Your task to perform on an android device: Open Google Maps Image 0: 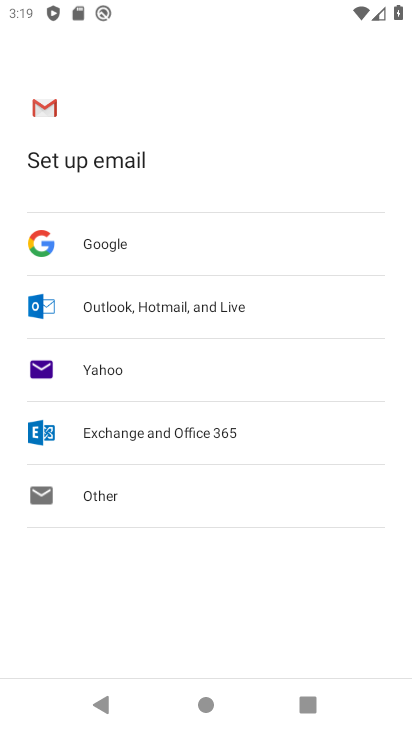
Step 0: press back button
Your task to perform on an android device: Open Google Maps Image 1: 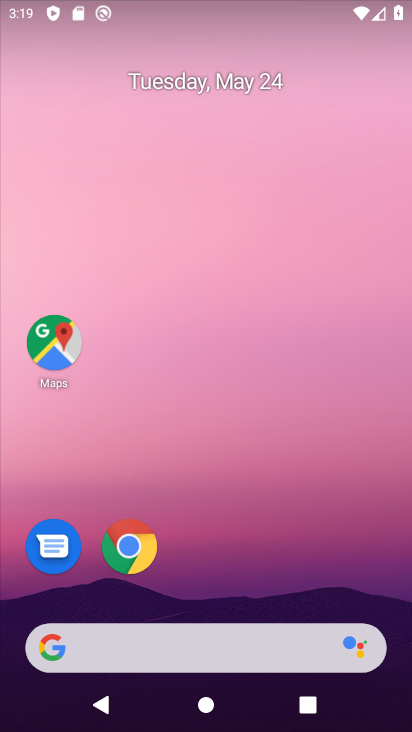
Step 1: drag from (264, 655) to (248, 190)
Your task to perform on an android device: Open Google Maps Image 2: 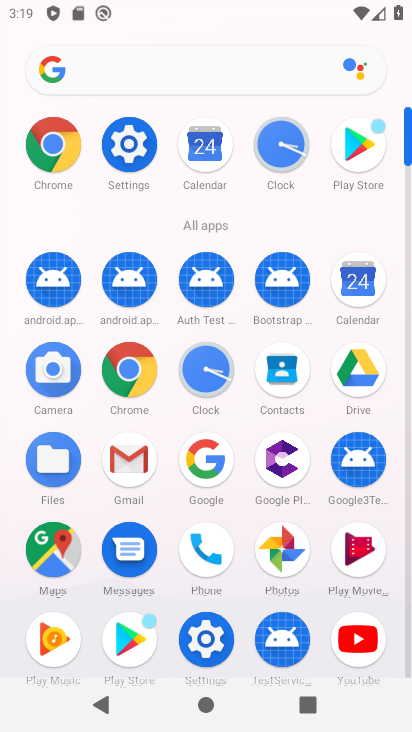
Step 2: click (54, 538)
Your task to perform on an android device: Open Google Maps Image 3: 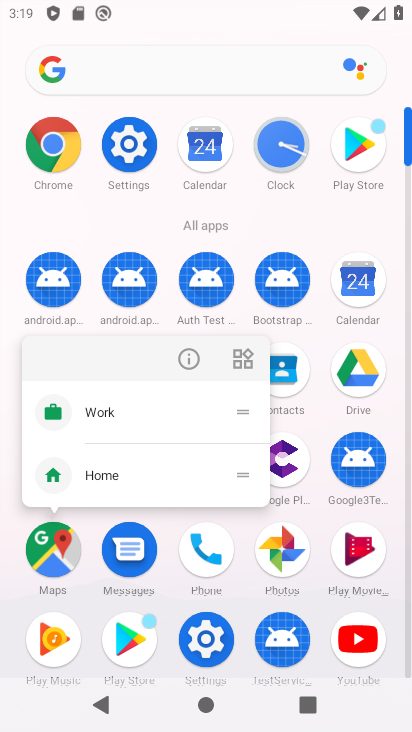
Step 3: click (56, 533)
Your task to perform on an android device: Open Google Maps Image 4: 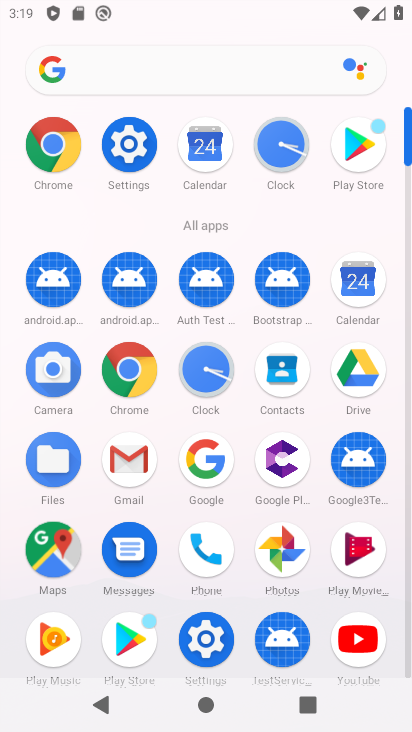
Step 4: click (57, 532)
Your task to perform on an android device: Open Google Maps Image 5: 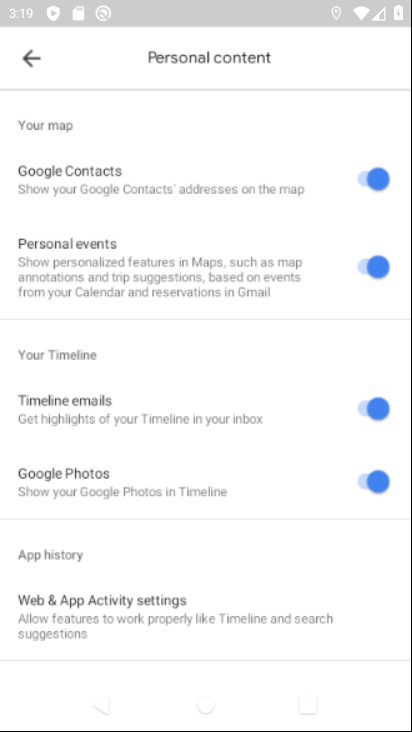
Step 5: click (59, 529)
Your task to perform on an android device: Open Google Maps Image 6: 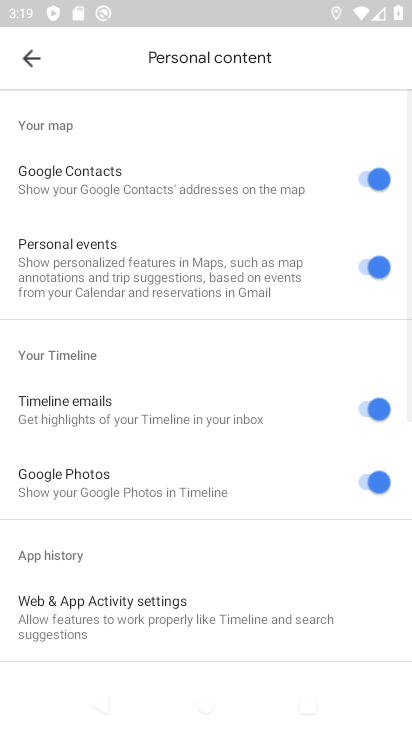
Step 6: click (19, 64)
Your task to perform on an android device: Open Google Maps Image 7: 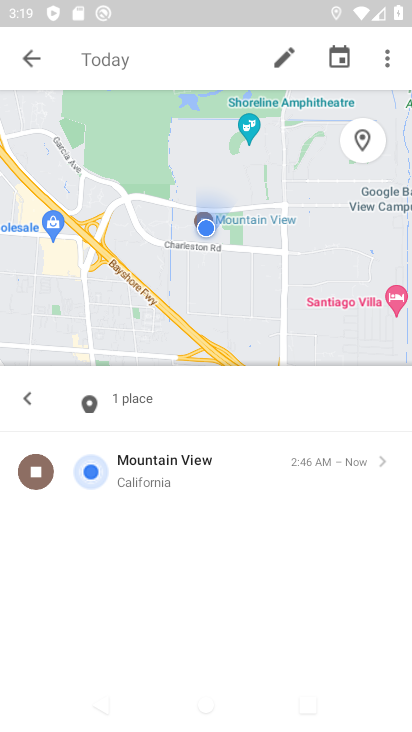
Step 7: task complete